Your task to perform on an android device: Open CNN.com Image 0: 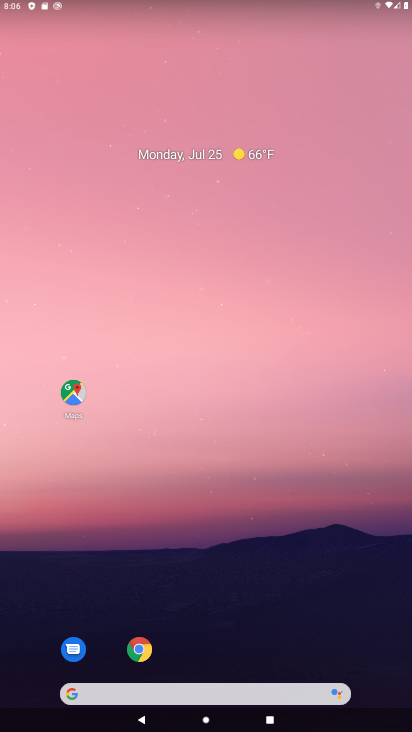
Step 0: click (153, 651)
Your task to perform on an android device: Open CNN.com Image 1: 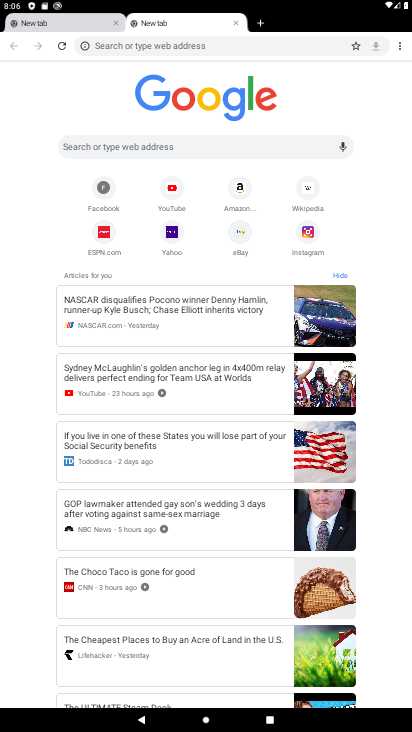
Step 1: click (106, 141)
Your task to perform on an android device: Open CNN.com Image 2: 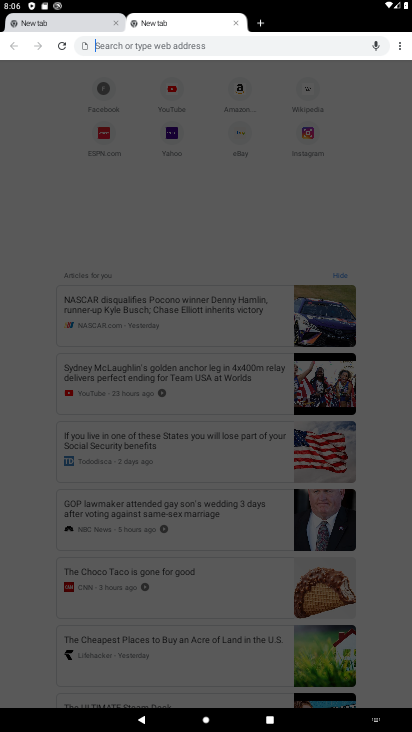
Step 2: type "CNN.com"
Your task to perform on an android device: Open CNN.com Image 3: 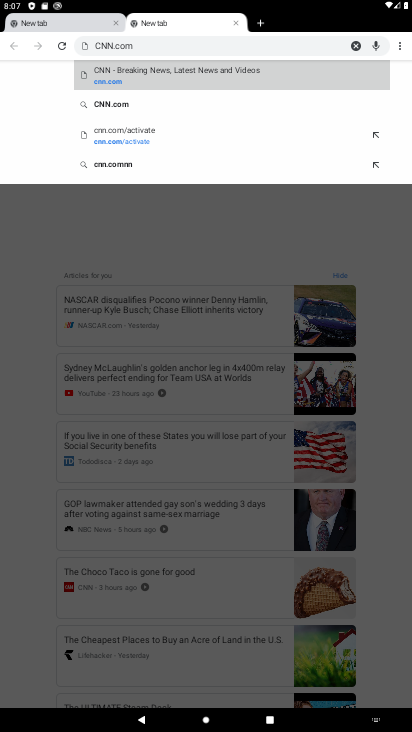
Step 3: click (144, 102)
Your task to perform on an android device: Open CNN.com Image 4: 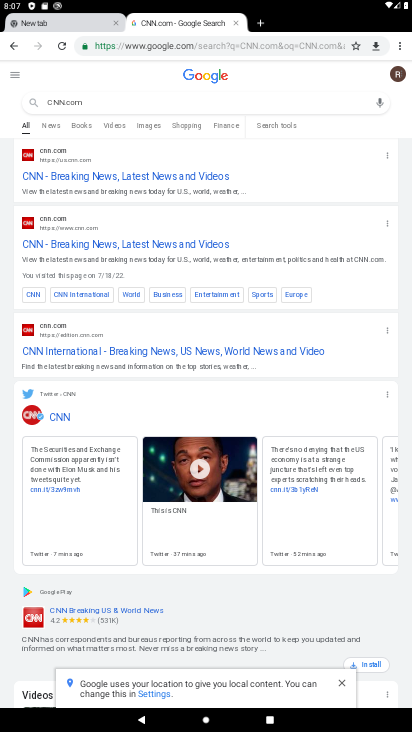
Step 4: click (49, 180)
Your task to perform on an android device: Open CNN.com Image 5: 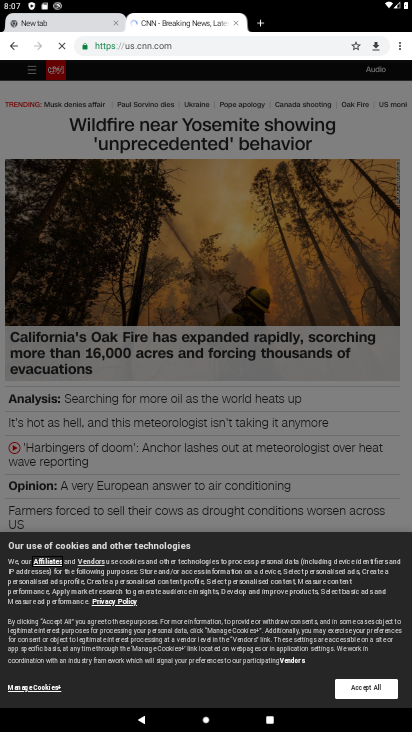
Step 5: task complete